Your task to perform on an android device: open app "Booking.com: Hotels and more" Image 0: 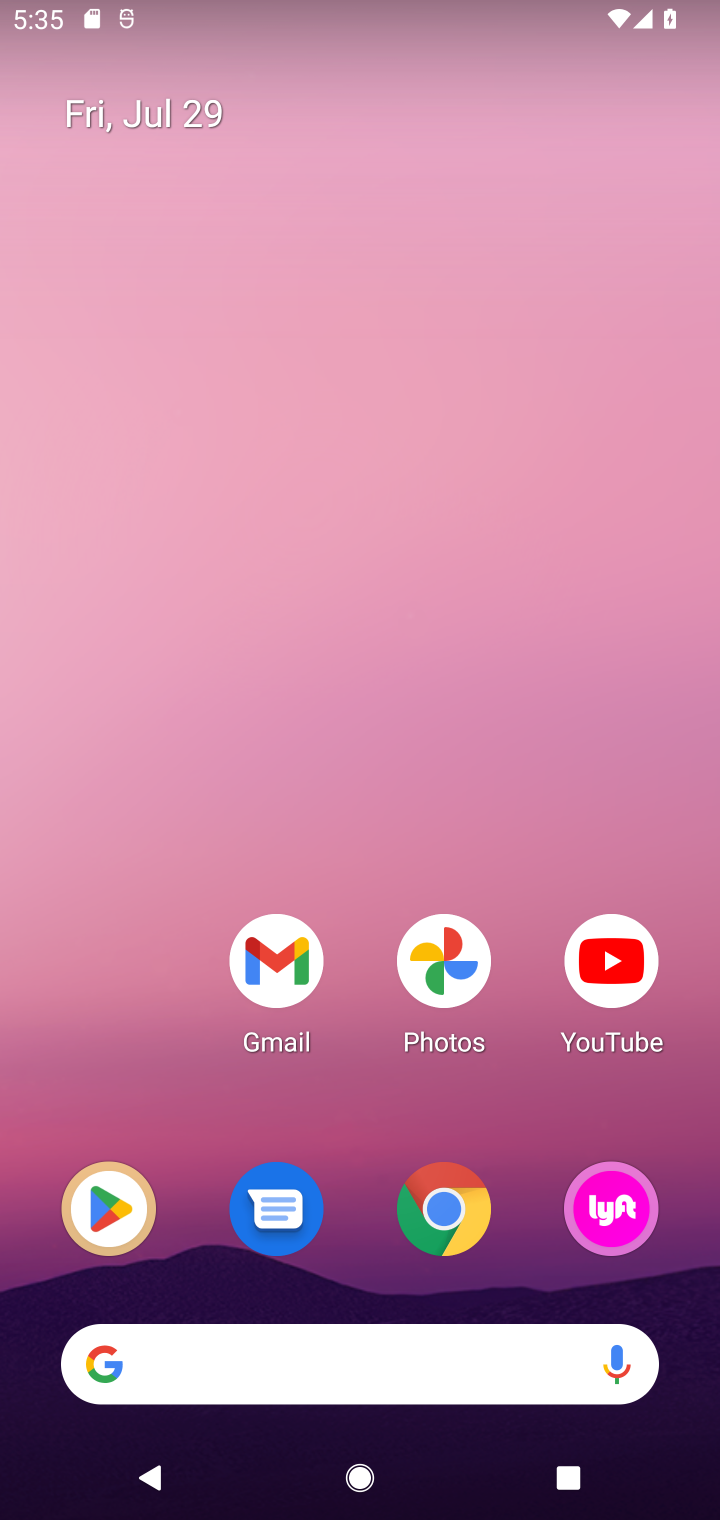
Step 0: click (106, 1217)
Your task to perform on an android device: open app "Booking.com: Hotels and more" Image 1: 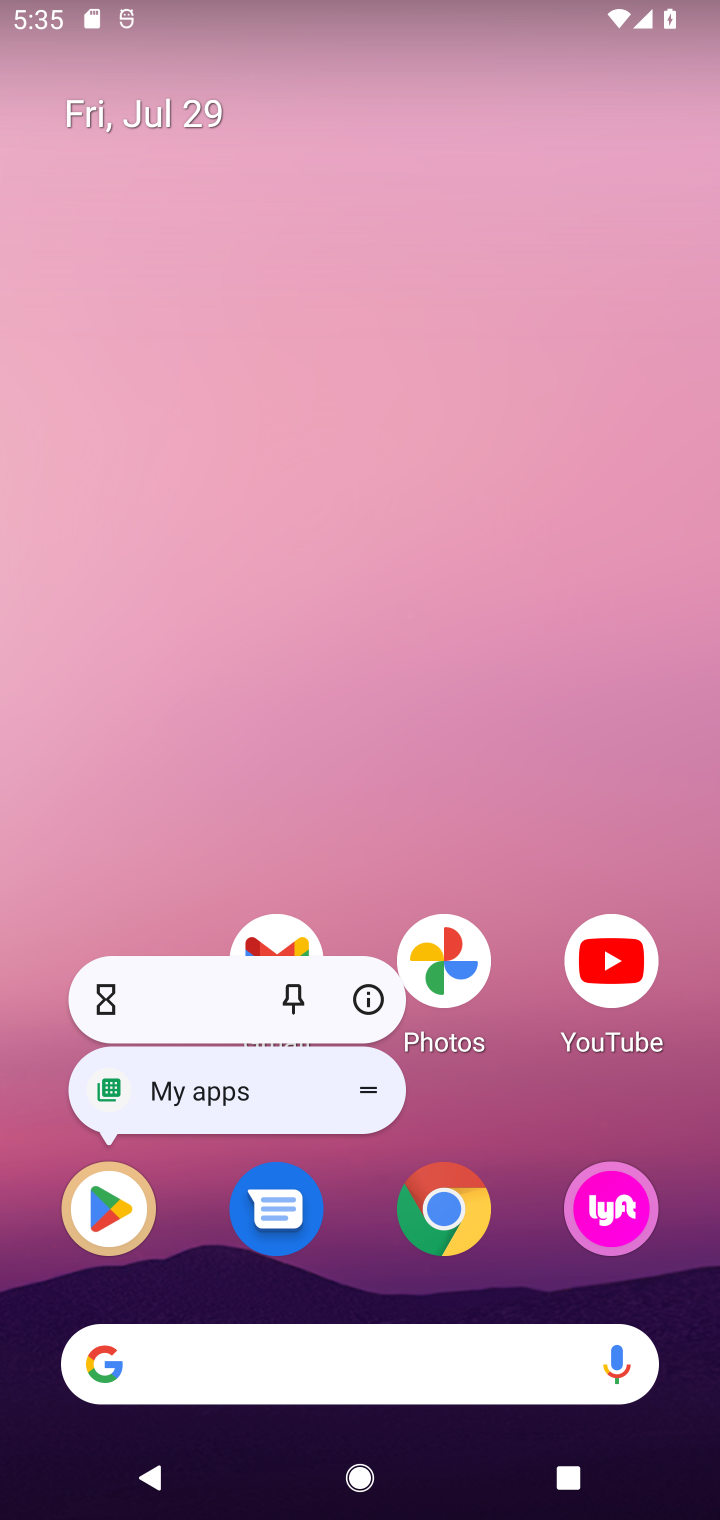
Step 1: click (106, 1217)
Your task to perform on an android device: open app "Booking.com: Hotels and more" Image 2: 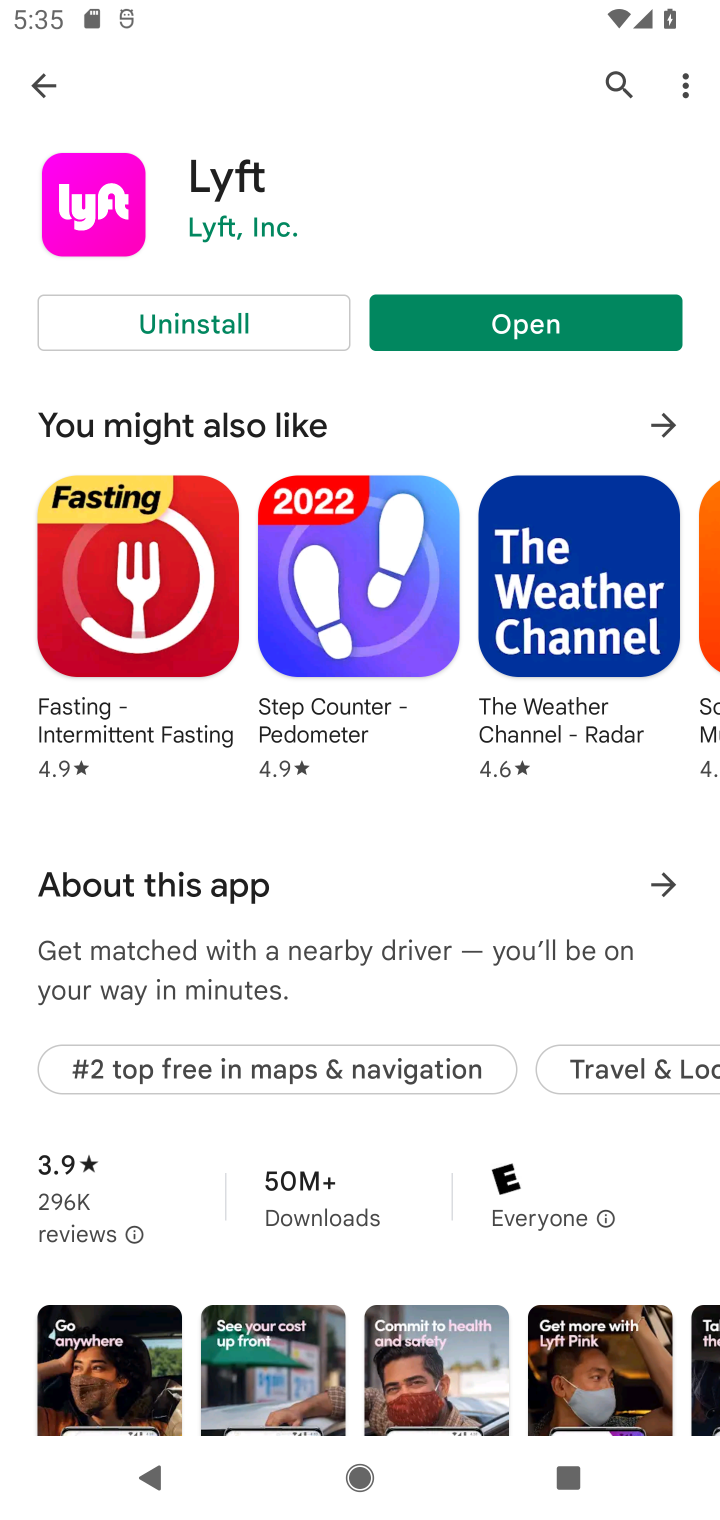
Step 2: click (628, 79)
Your task to perform on an android device: open app "Booking.com: Hotels and more" Image 3: 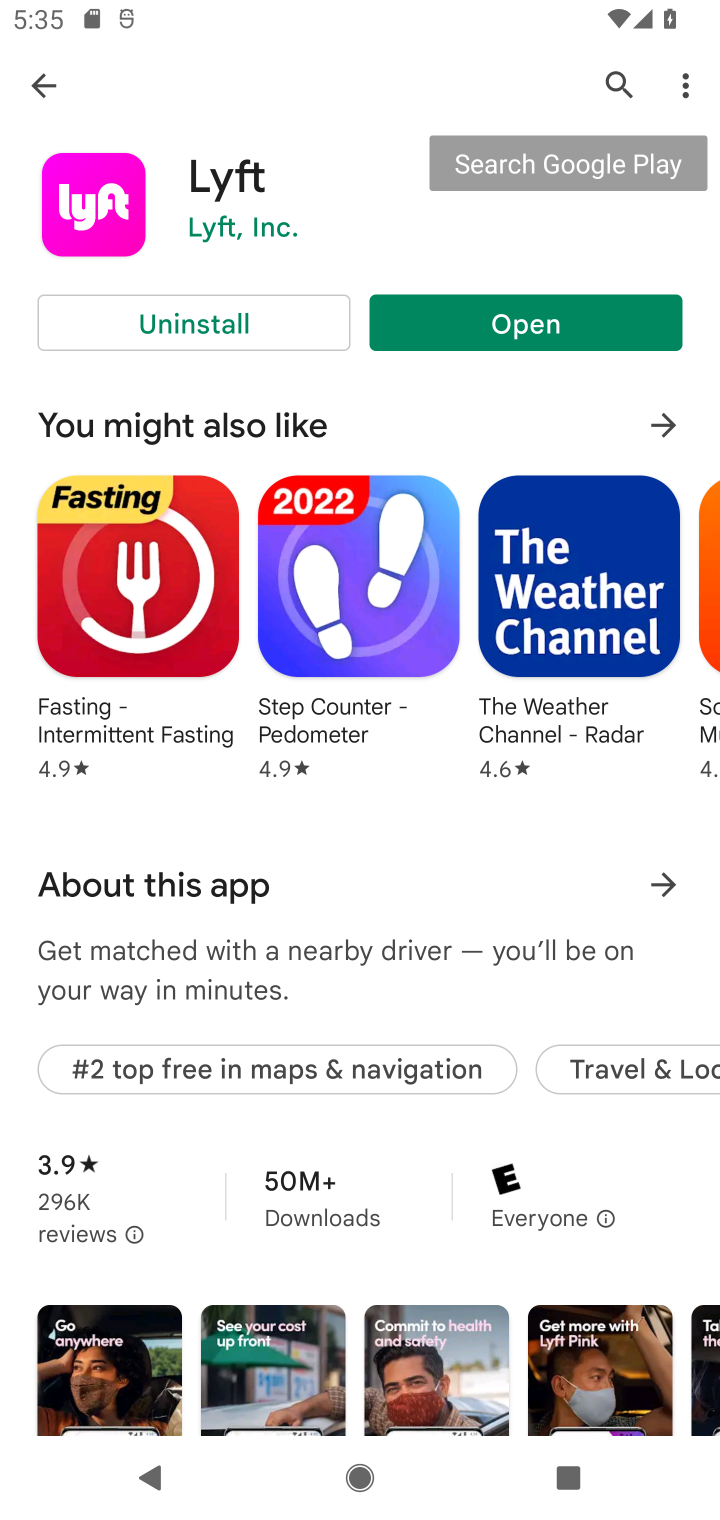
Step 3: click (619, 85)
Your task to perform on an android device: open app "Booking.com: Hotels and more" Image 4: 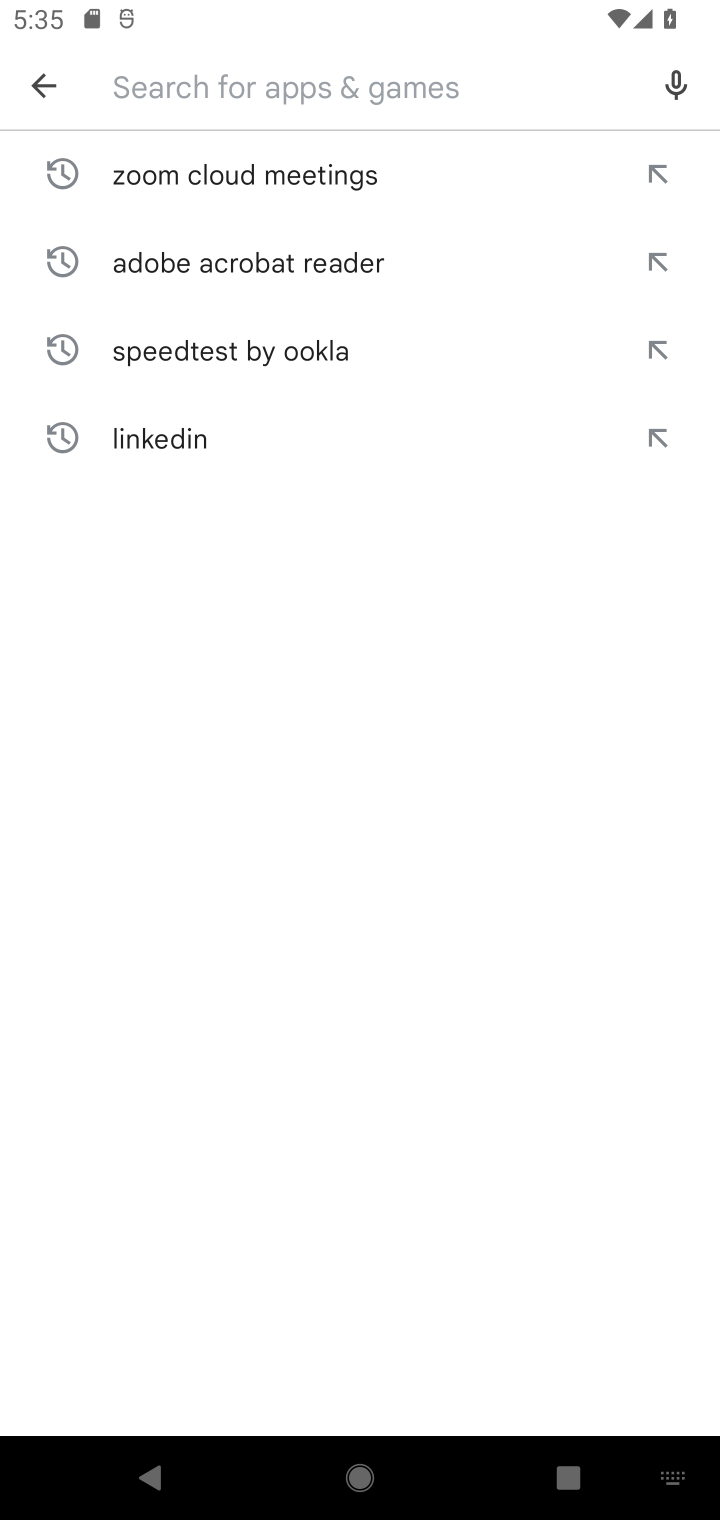
Step 4: click (385, 108)
Your task to perform on an android device: open app "Booking.com: Hotels and more" Image 5: 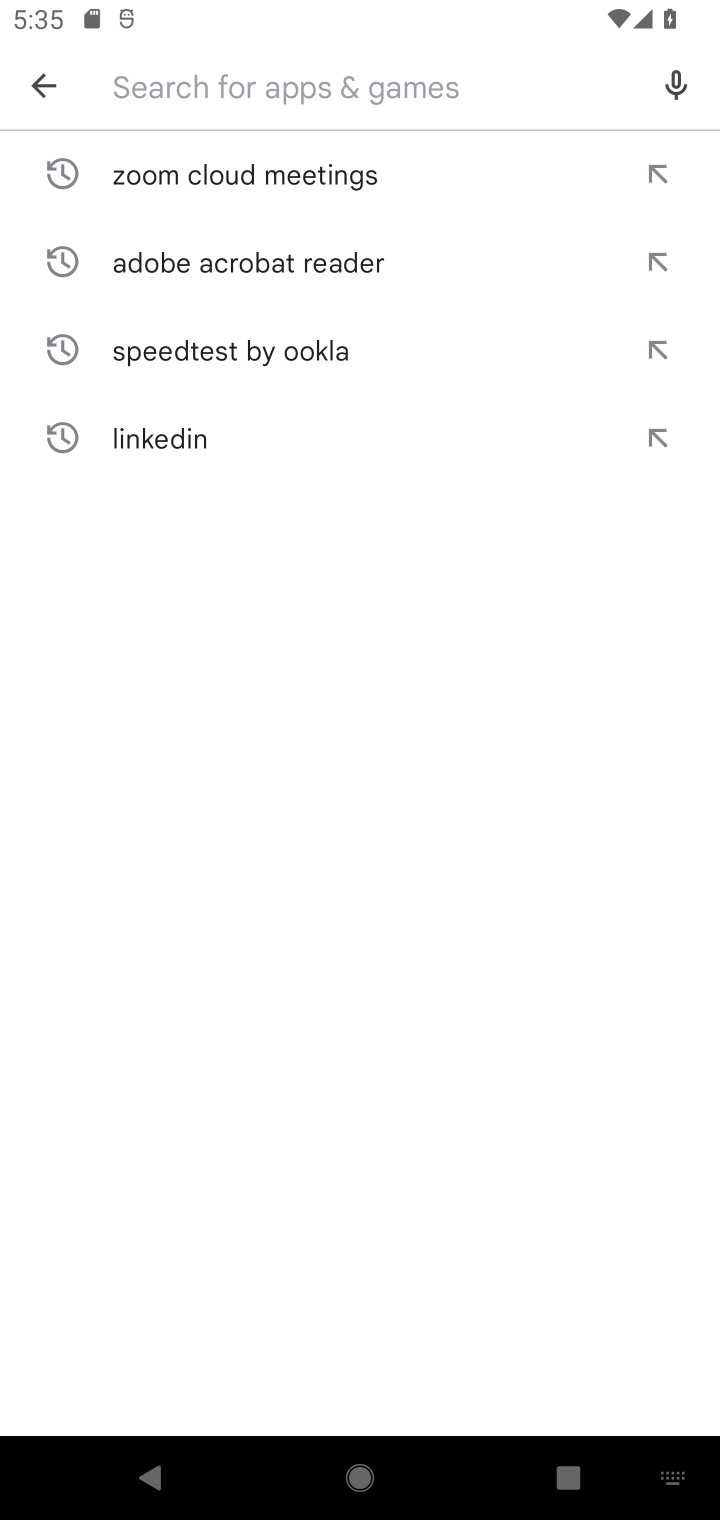
Step 5: type "Booking.com: Hotels and more"
Your task to perform on an android device: open app "Booking.com: Hotels and more" Image 6: 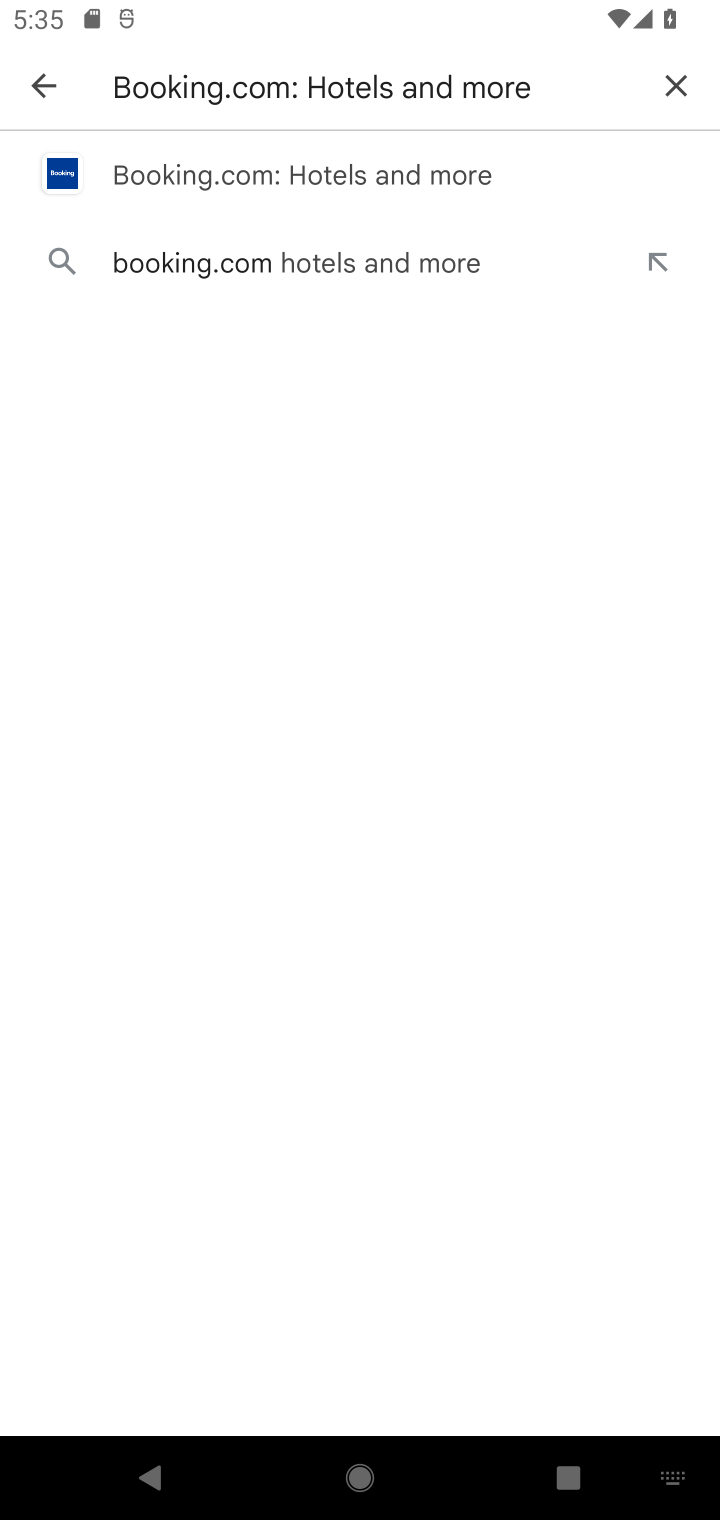
Step 6: click (251, 177)
Your task to perform on an android device: open app "Booking.com: Hotels and more" Image 7: 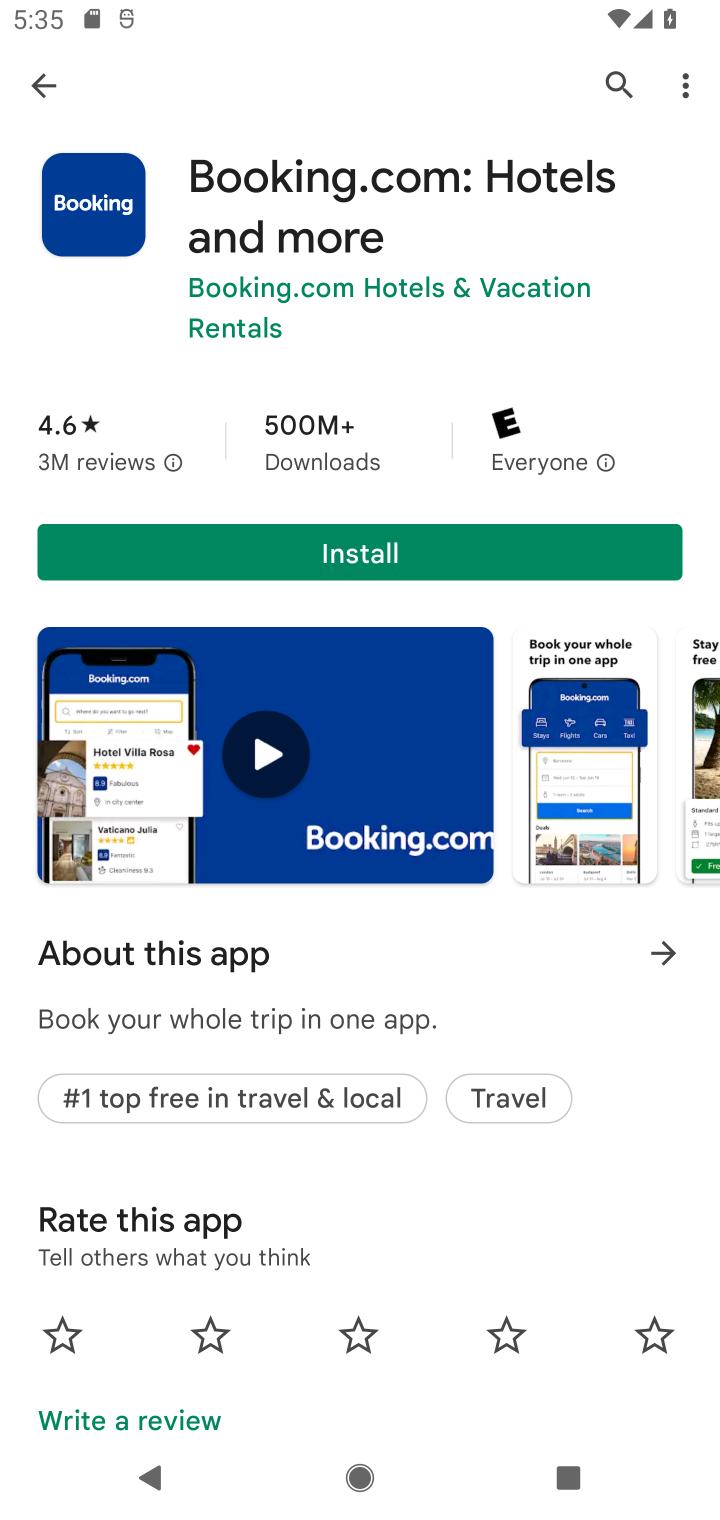
Step 7: task complete